Your task to perform on an android device: Show me recent news Image 0: 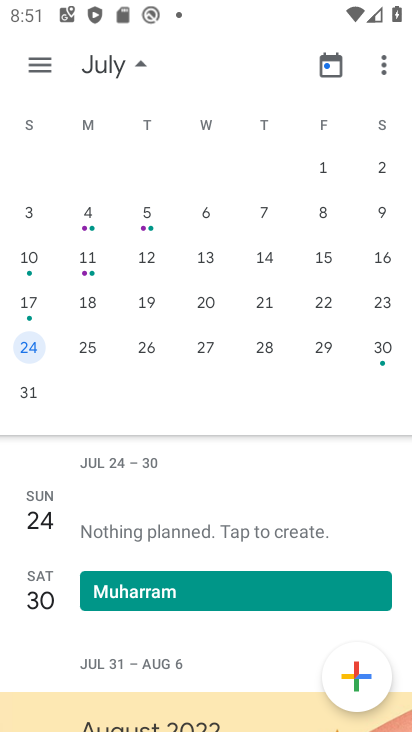
Step 0: press home button
Your task to perform on an android device: Show me recent news Image 1: 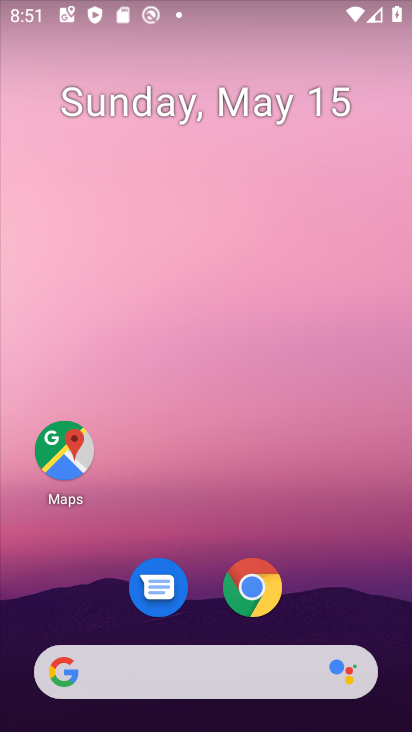
Step 1: click (252, 578)
Your task to perform on an android device: Show me recent news Image 2: 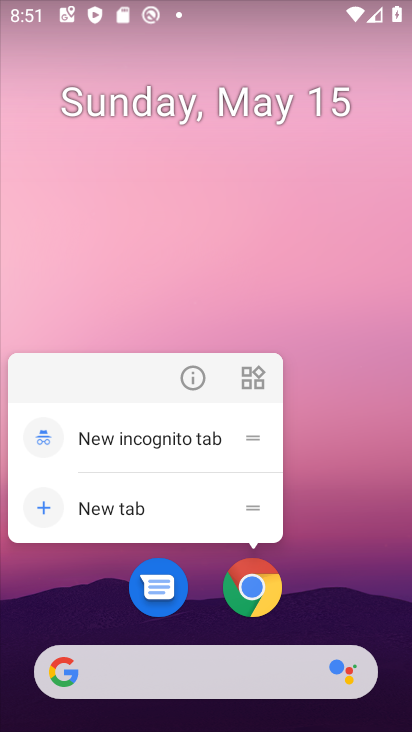
Step 2: click (267, 591)
Your task to perform on an android device: Show me recent news Image 3: 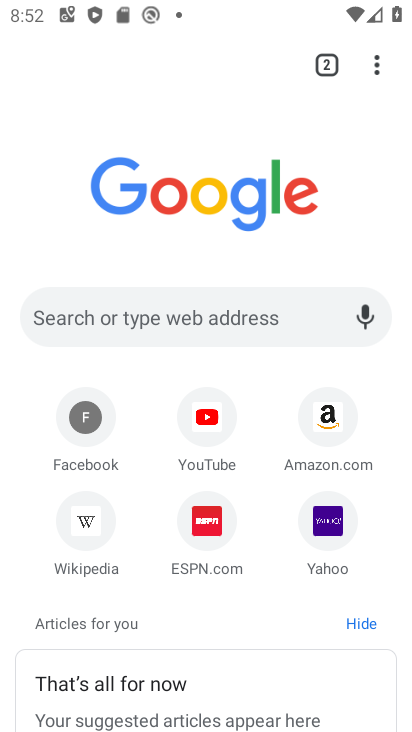
Step 3: drag from (250, 679) to (158, 129)
Your task to perform on an android device: Show me recent news Image 4: 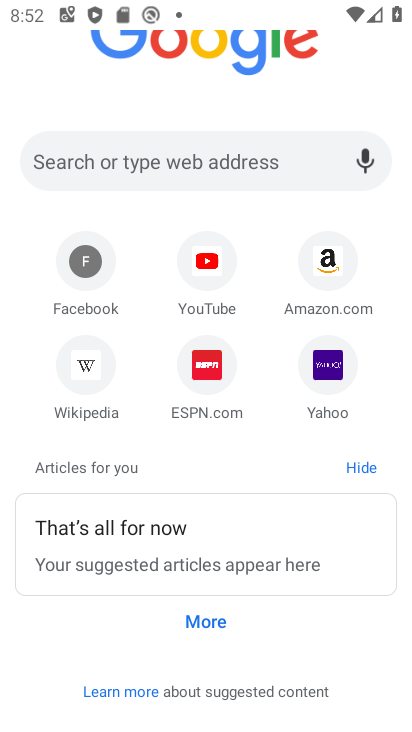
Step 4: click (183, 624)
Your task to perform on an android device: Show me recent news Image 5: 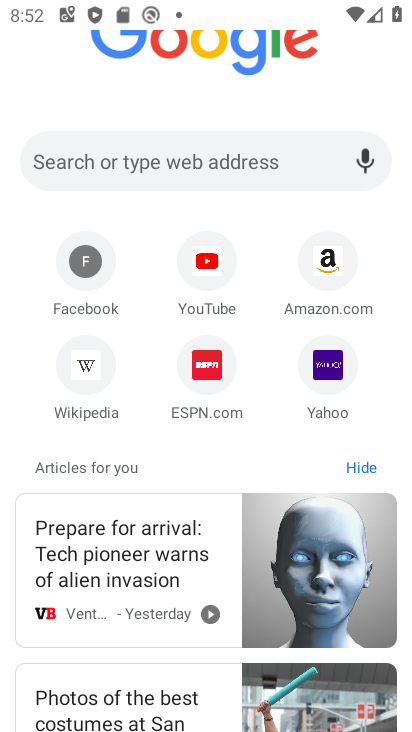
Step 5: click (130, 522)
Your task to perform on an android device: Show me recent news Image 6: 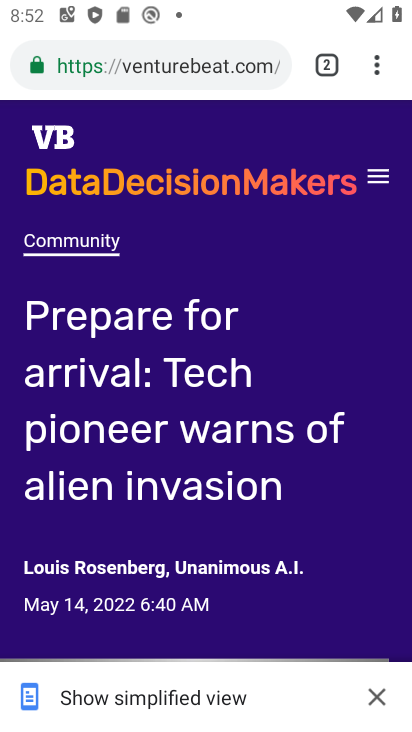
Step 6: task complete